Your task to perform on an android device: turn off translation in the chrome app Image 0: 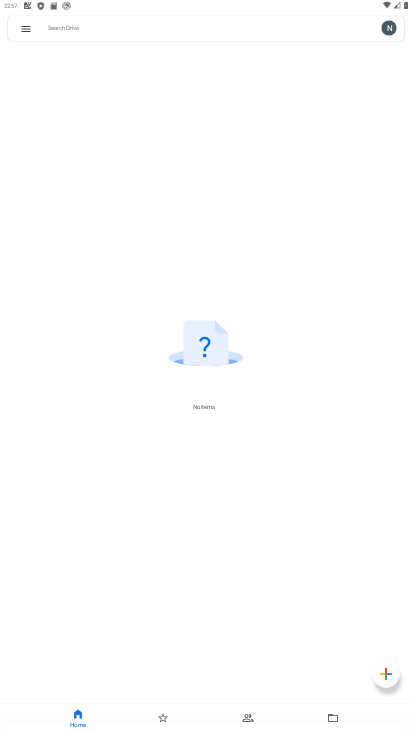
Step 0: press home button
Your task to perform on an android device: turn off translation in the chrome app Image 1: 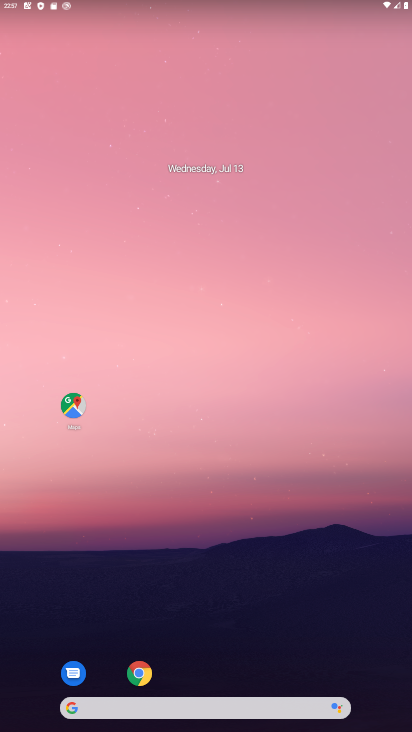
Step 1: click (148, 682)
Your task to perform on an android device: turn off translation in the chrome app Image 2: 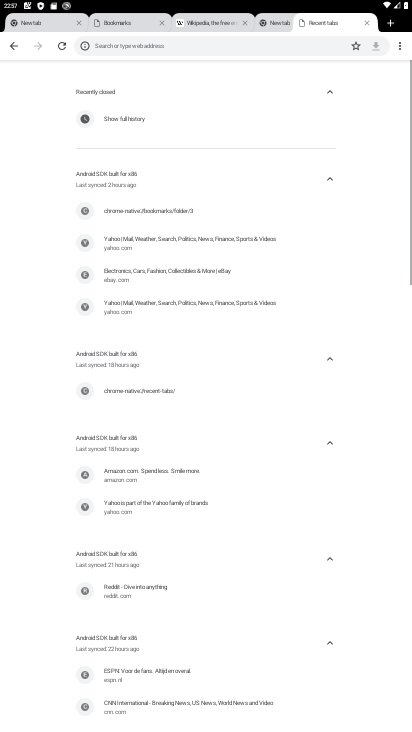
Step 2: click (399, 46)
Your task to perform on an android device: turn off translation in the chrome app Image 3: 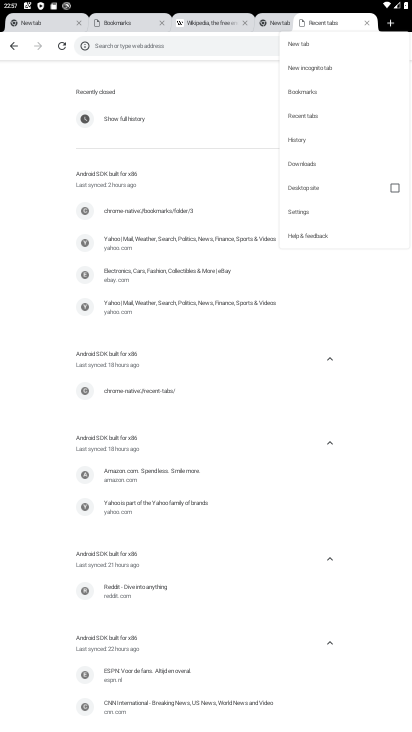
Step 3: click (305, 210)
Your task to perform on an android device: turn off translation in the chrome app Image 4: 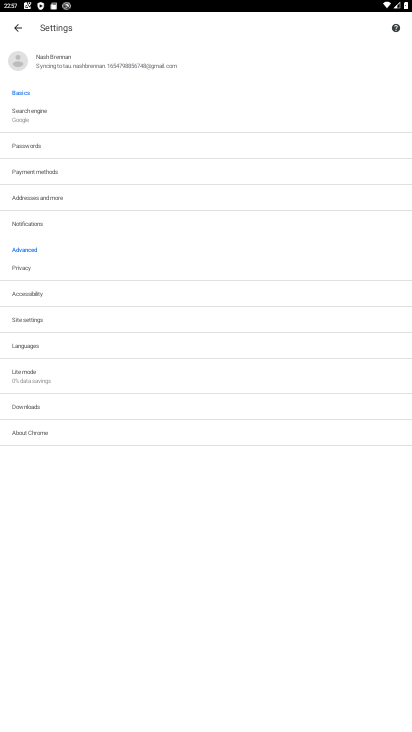
Step 4: click (29, 338)
Your task to perform on an android device: turn off translation in the chrome app Image 5: 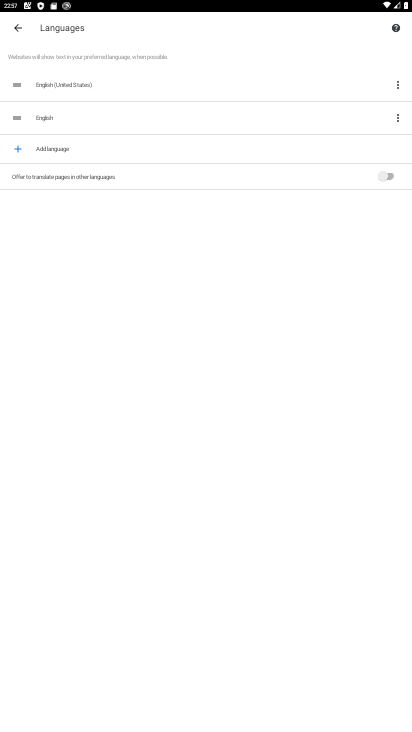
Step 5: click (389, 178)
Your task to perform on an android device: turn off translation in the chrome app Image 6: 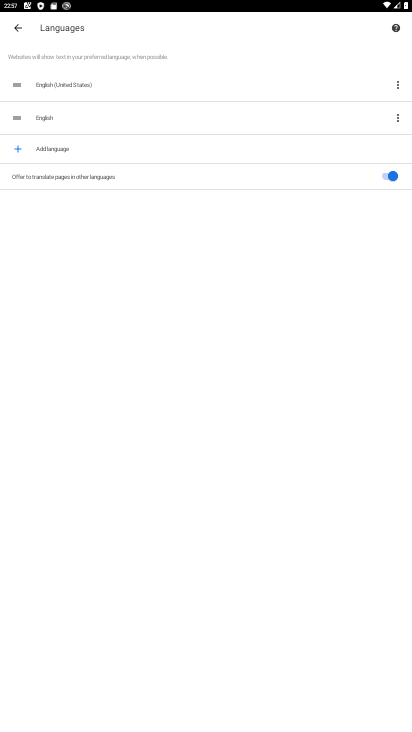
Step 6: click (385, 175)
Your task to perform on an android device: turn off translation in the chrome app Image 7: 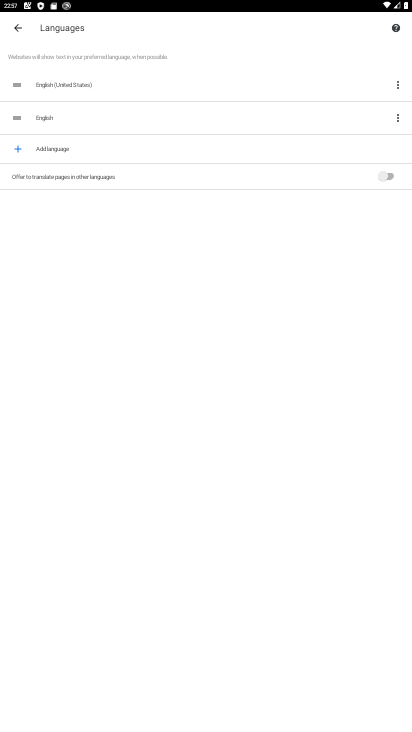
Step 7: task complete